Your task to perform on an android device: turn on airplane mode Image 0: 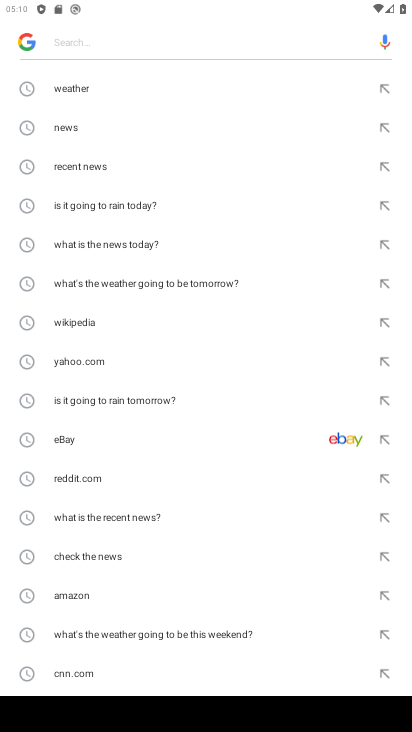
Step 0: drag from (337, 3) to (289, 638)
Your task to perform on an android device: turn on airplane mode Image 1: 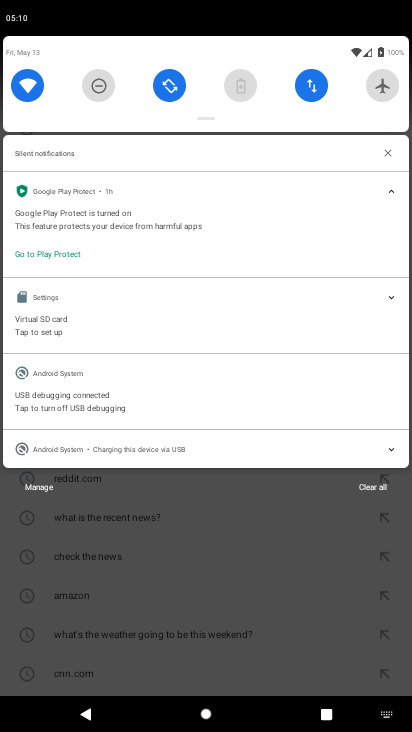
Step 1: click (385, 107)
Your task to perform on an android device: turn on airplane mode Image 2: 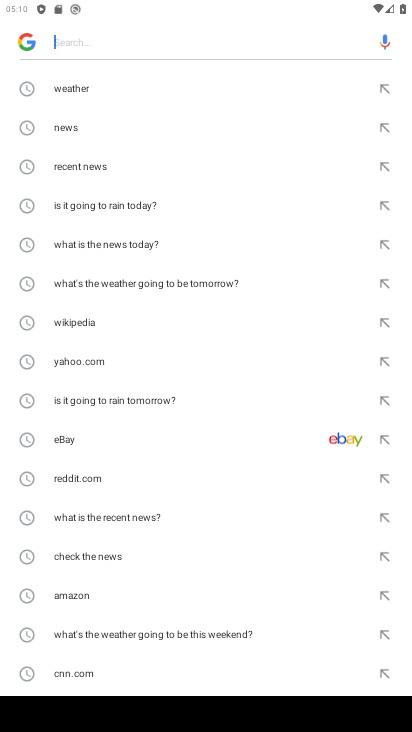
Step 2: drag from (343, 4) to (280, 495)
Your task to perform on an android device: turn on airplane mode Image 3: 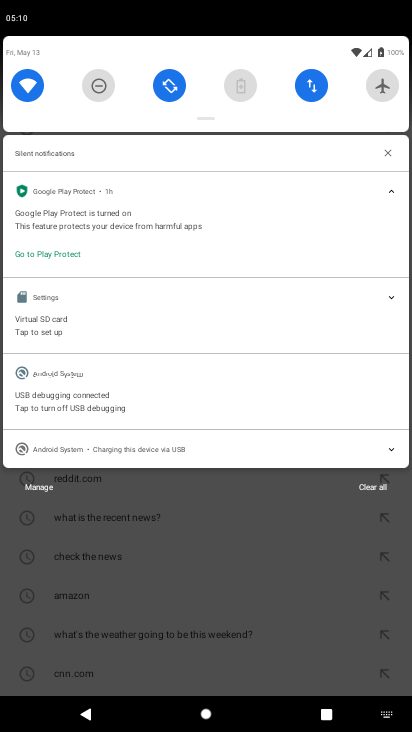
Step 3: click (377, 75)
Your task to perform on an android device: turn on airplane mode Image 4: 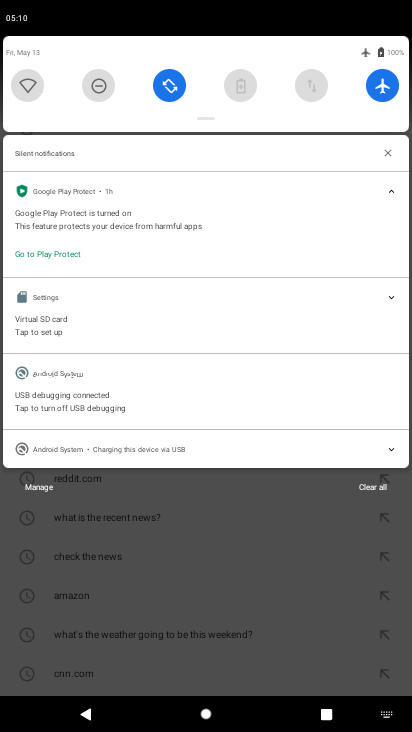
Step 4: task complete